Your task to perform on an android device: star an email in the gmail app Image 0: 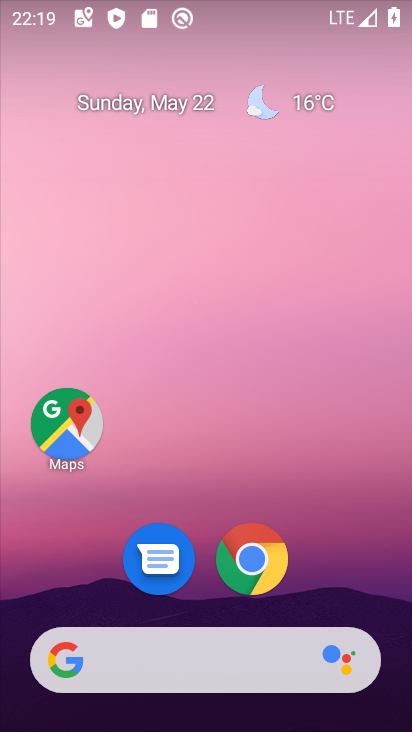
Step 0: drag from (256, 695) to (214, 212)
Your task to perform on an android device: star an email in the gmail app Image 1: 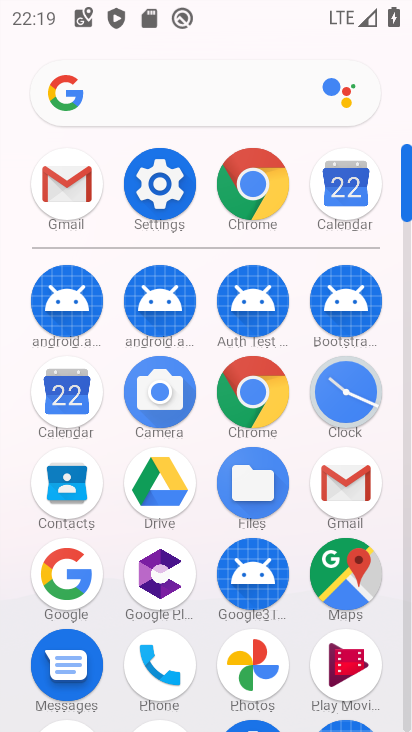
Step 1: click (71, 194)
Your task to perform on an android device: star an email in the gmail app Image 2: 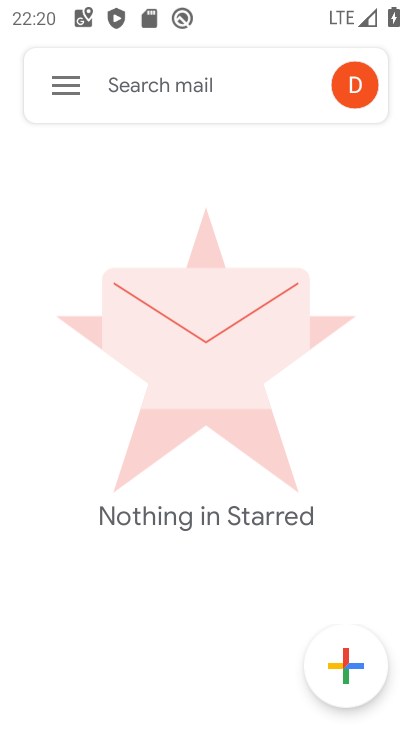
Step 2: click (53, 102)
Your task to perform on an android device: star an email in the gmail app Image 3: 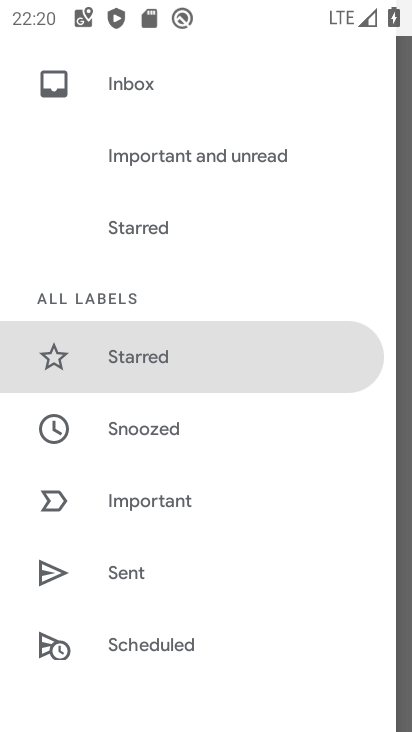
Step 3: click (114, 352)
Your task to perform on an android device: star an email in the gmail app Image 4: 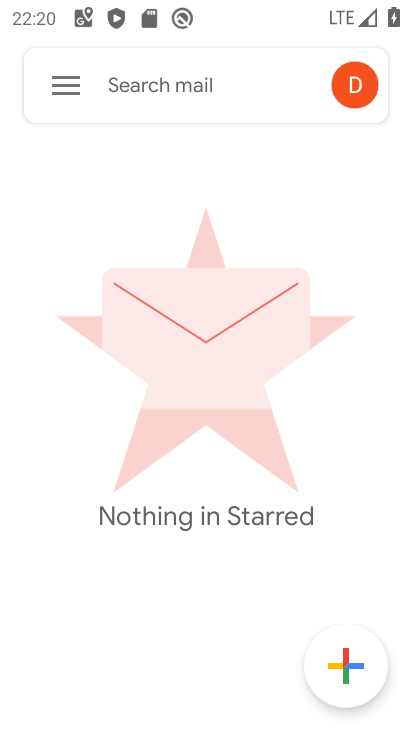
Step 4: task complete